Your task to perform on an android device: clear all cookies in the chrome app Image 0: 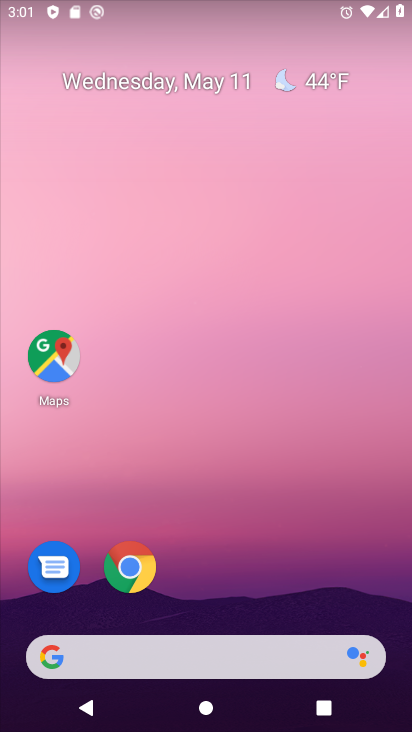
Step 0: drag from (245, 502) to (219, 0)
Your task to perform on an android device: clear all cookies in the chrome app Image 1: 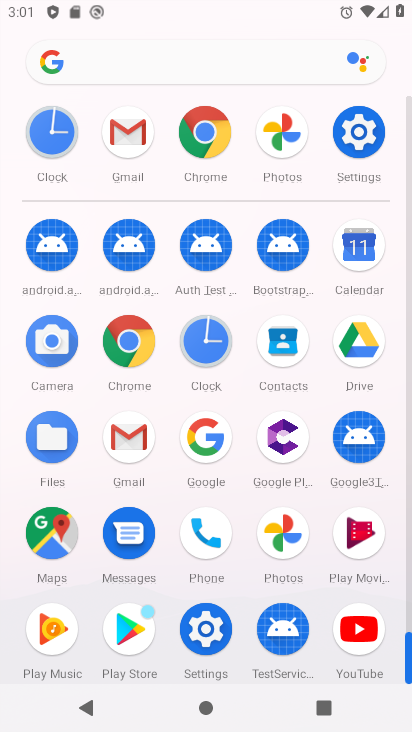
Step 1: click (204, 128)
Your task to perform on an android device: clear all cookies in the chrome app Image 2: 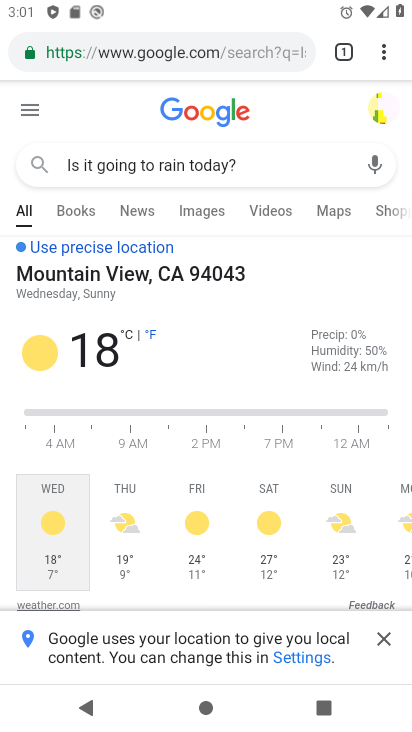
Step 2: drag from (378, 49) to (218, 603)
Your task to perform on an android device: clear all cookies in the chrome app Image 3: 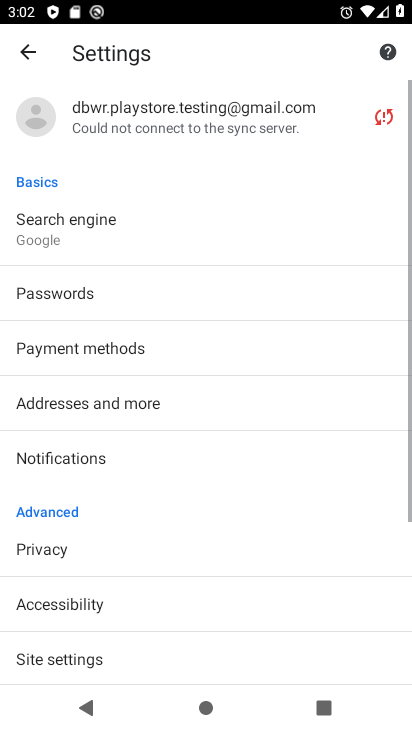
Step 3: click (74, 545)
Your task to perform on an android device: clear all cookies in the chrome app Image 4: 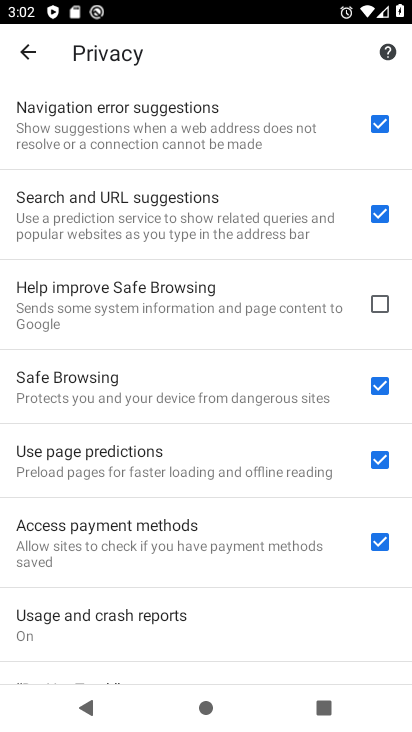
Step 4: drag from (161, 587) to (169, 127)
Your task to perform on an android device: clear all cookies in the chrome app Image 5: 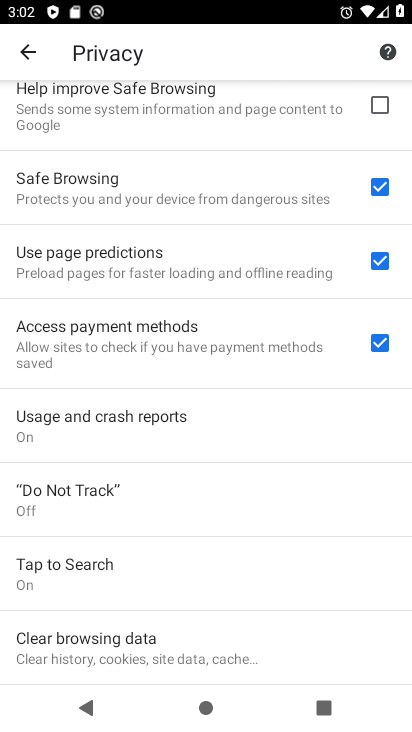
Step 5: click (145, 649)
Your task to perform on an android device: clear all cookies in the chrome app Image 6: 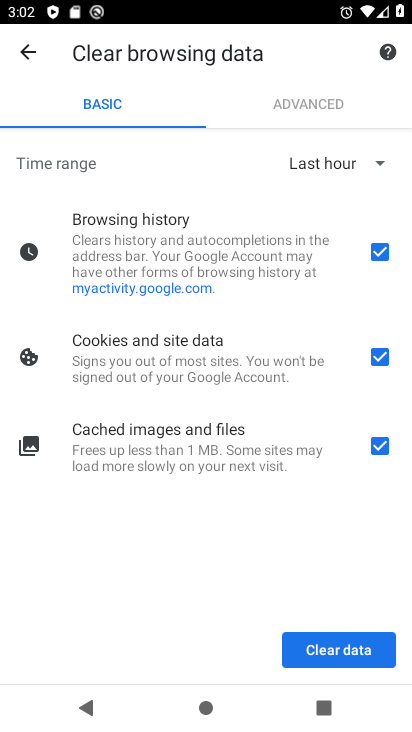
Step 6: click (383, 245)
Your task to perform on an android device: clear all cookies in the chrome app Image 7: 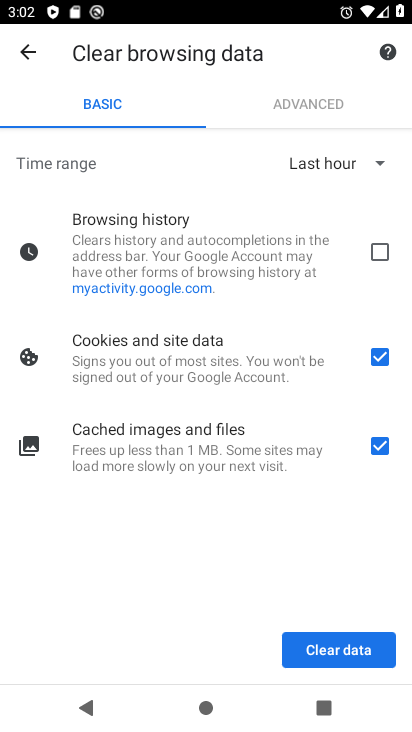
Step 7: click (352, 634)
Your task to perform on an android device: clear all cookies in the chrome app Image 8: 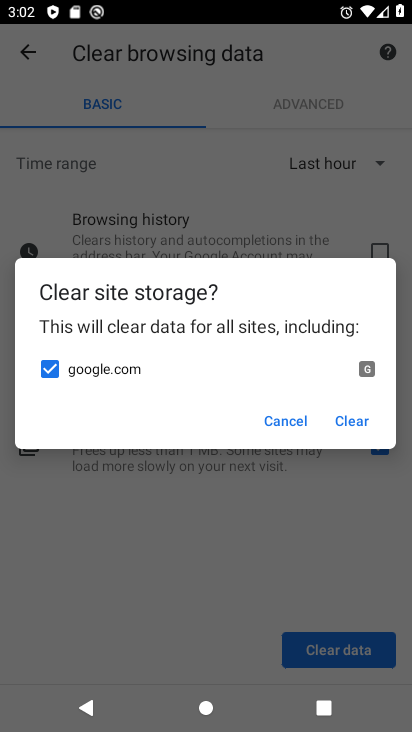
Step 8: click (343, 418)
Your task to perform on an android device: clear all cookies in the chrome app Image 9: 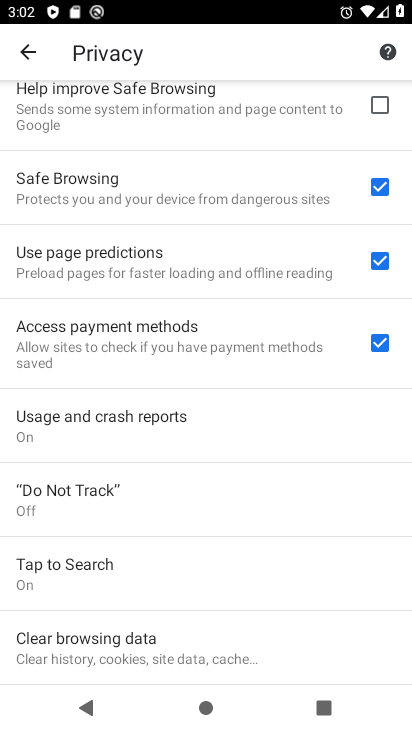
Step 9: click (173, 650)
Your task to perform on an android device: clear all cookies in the chrome app Image 10: 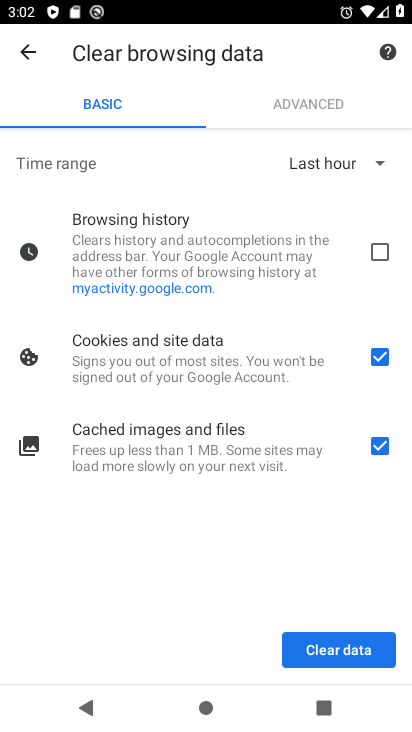
Step 10: click (353, 647)
Your task to perform on an android device: clear all cookies in the chrome app Image 11: 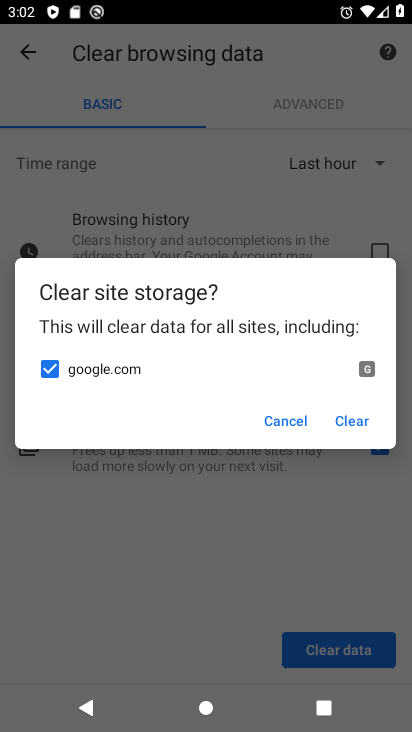
Step 11: click (357, 419)
Your task to perform on an android device: clear all cookies in the chrome app Image 12: 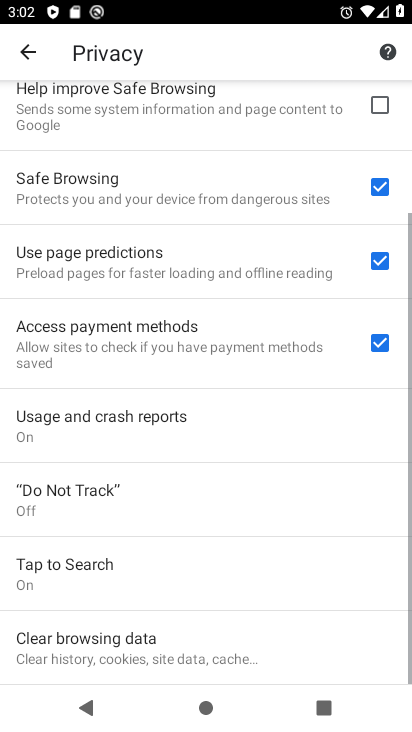
Step 12: task complete